Your task to perform on an android device: open app "Google Play services" Image 0: 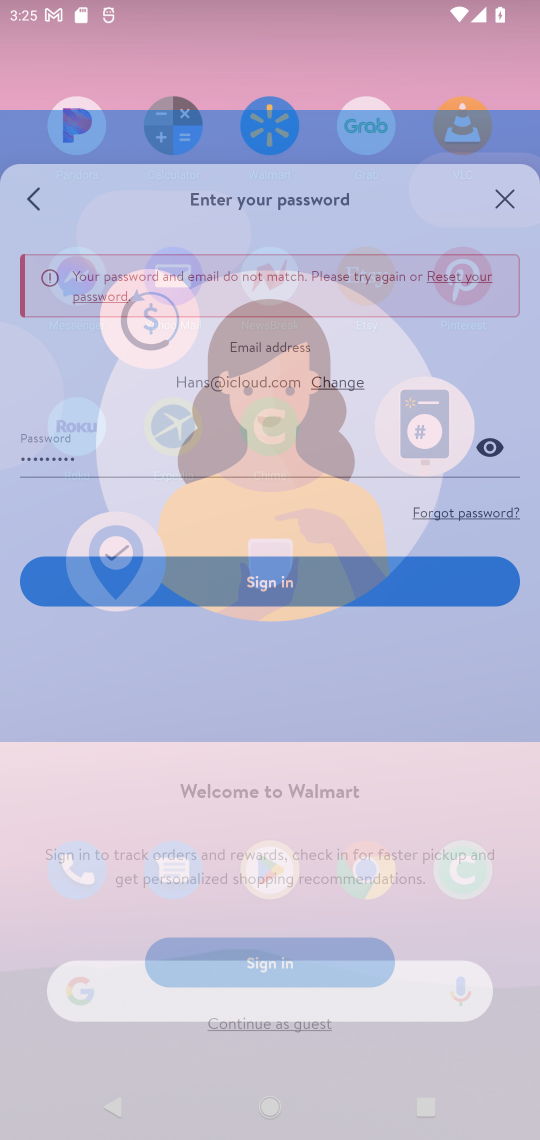
Step 0: click (516, 522)
Your task to perform on an android device: open app "Google Play services" Image 1: 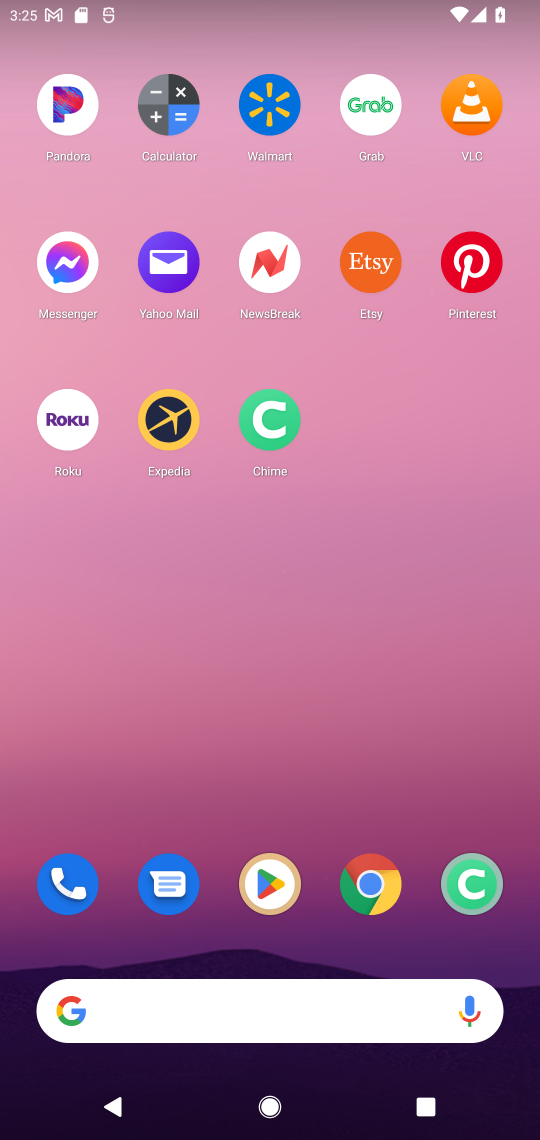
Step 1: click (278, 883)
Your task to perform on an android device: open app "Google Play services" Image 2: 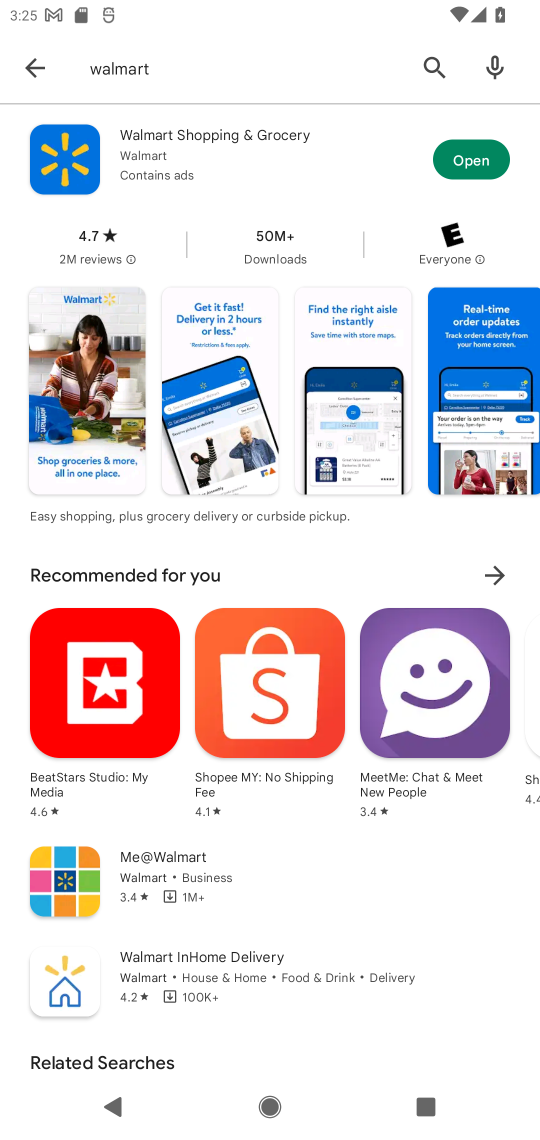
Step 2: click (184, 75)
Your task to perform on an android device: open app "Google Play services" Image 3: 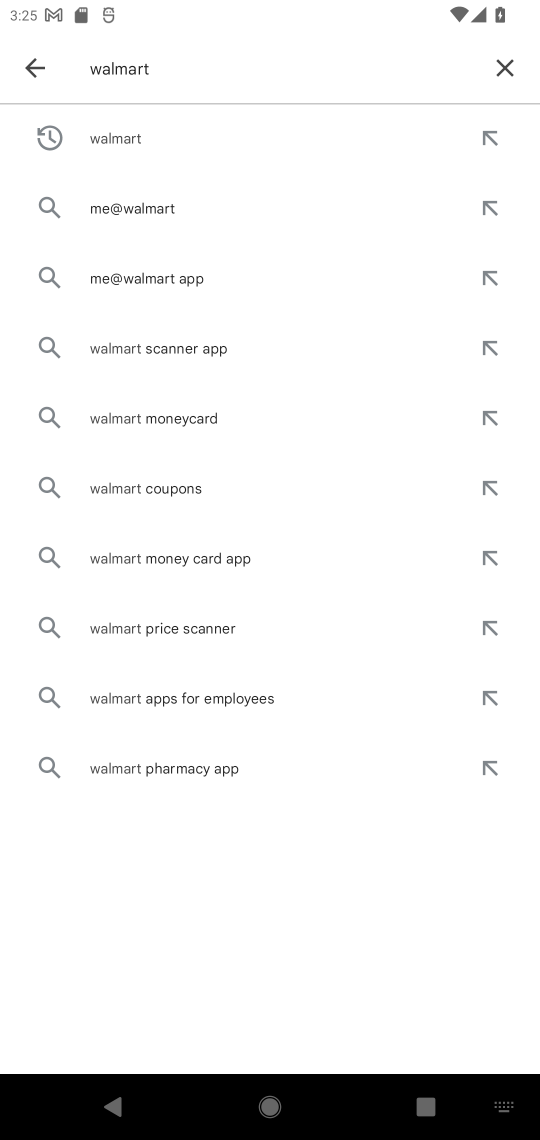
Step 3: click (502, 74)
Your task to perform on an android device: open app "Google Play services" Image 4: 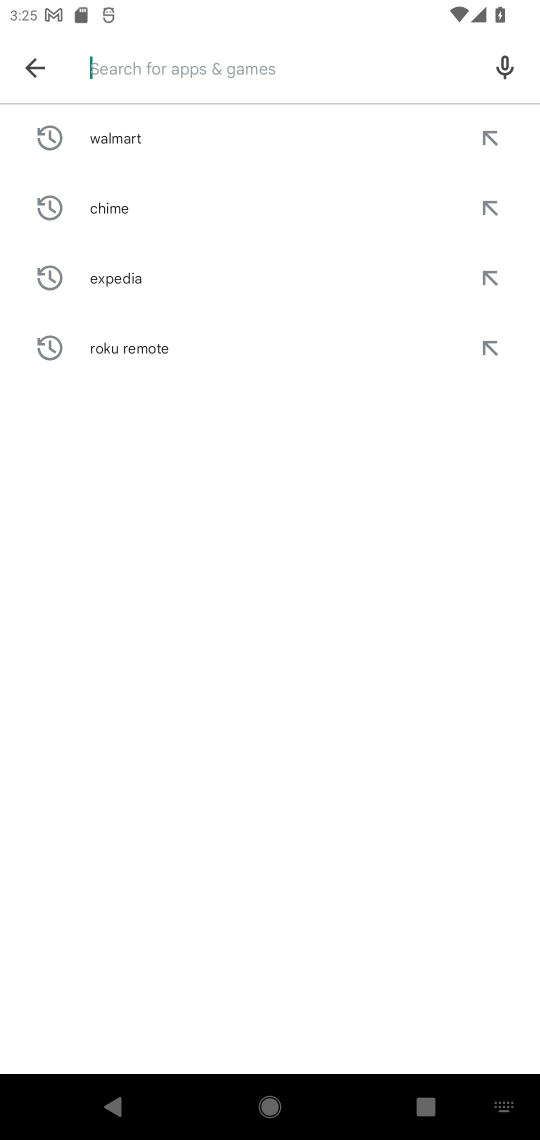
Step 4: type "google play services"
Your task to perform on an android device: open app "Google Play services" Image 5: 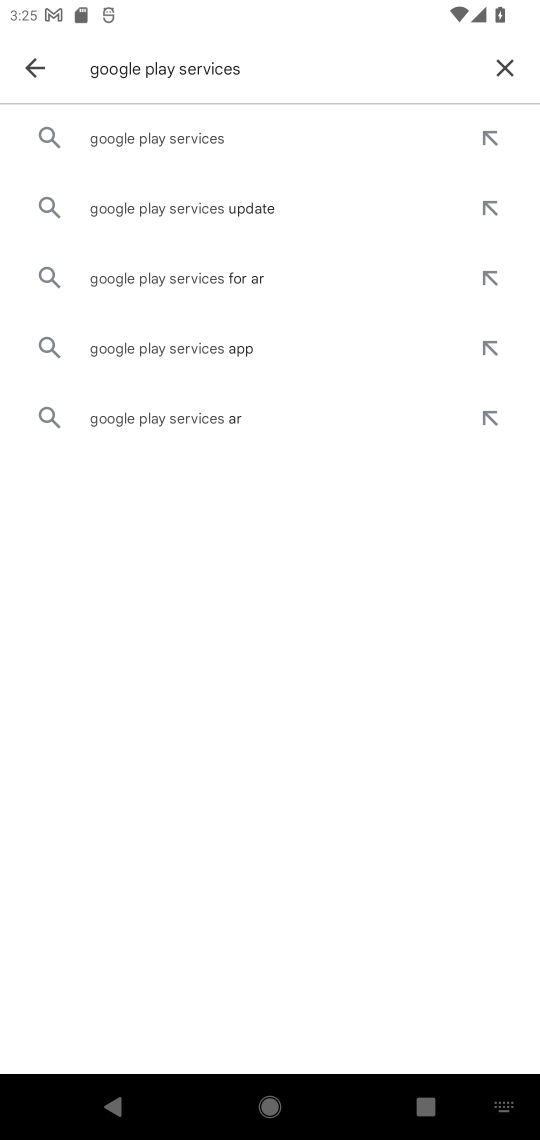
Step 5: click (199, 134)
Your task to perform on an android device: open app "Google Play services" Image 6: 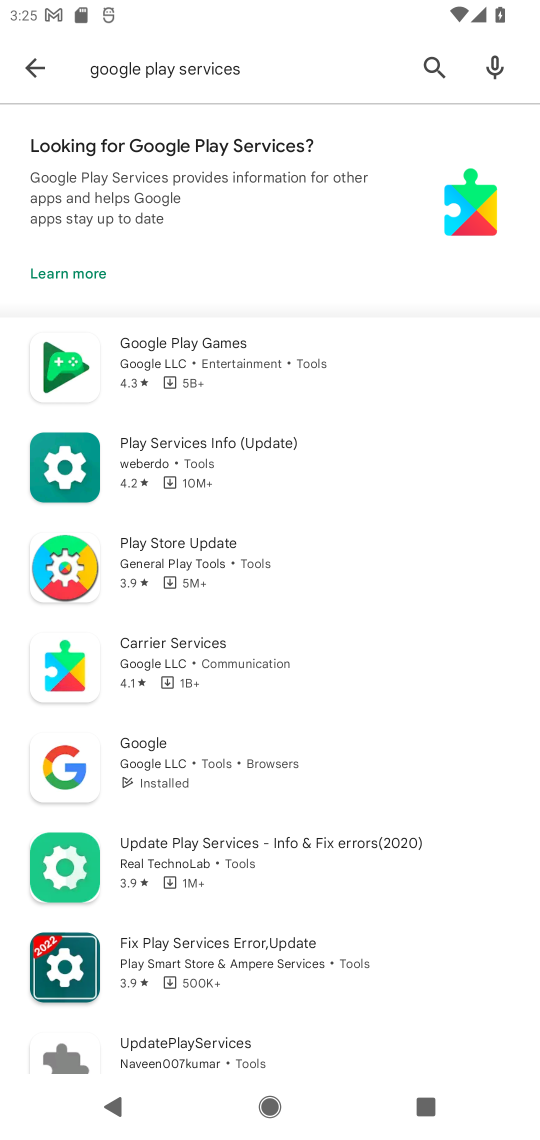
Step 6: task complete